Your task to perform on an android device: What's the weather? Image 0: 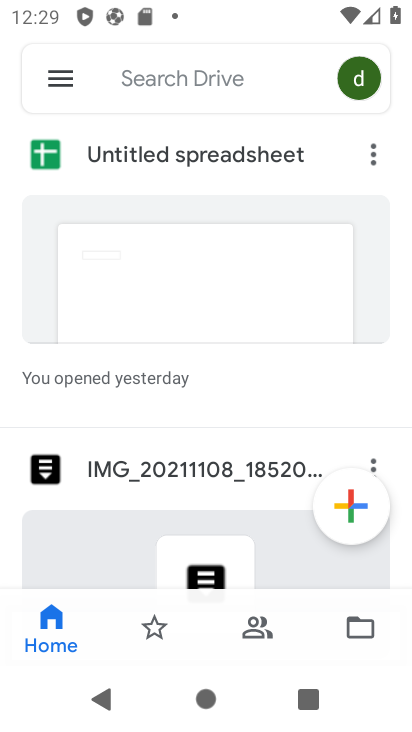
Step 0: press home button
Your task to perform on an android device: What's the weather? Image 1: 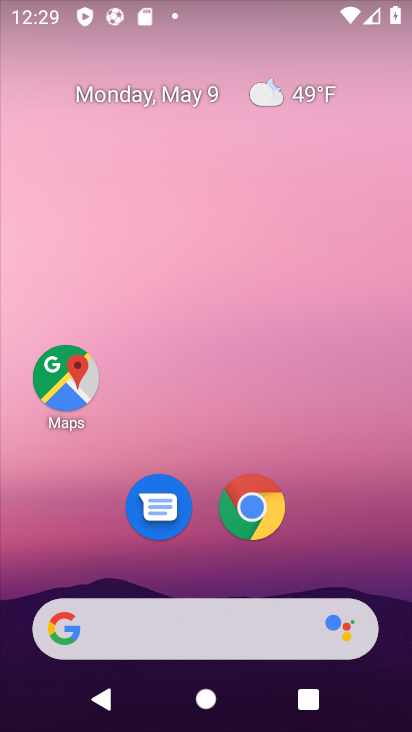
Step 1: drag from (212, 611) to (200, 202)
Your task to perform on an android device: What's the weather? Image 2: 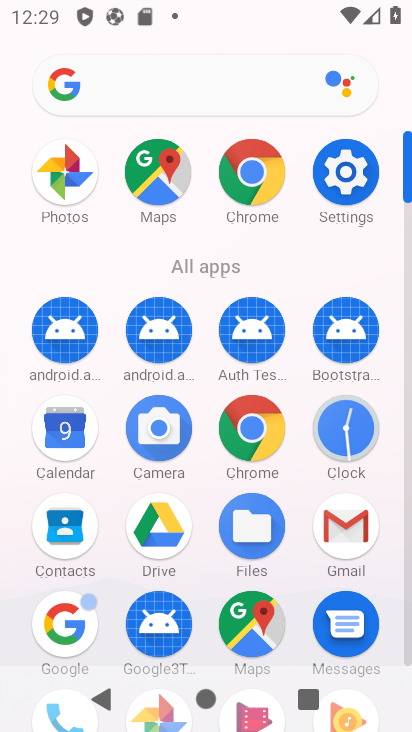
Step 2: click (52, 623)
Your task to perform on an android device: What's the weather? Image 3: 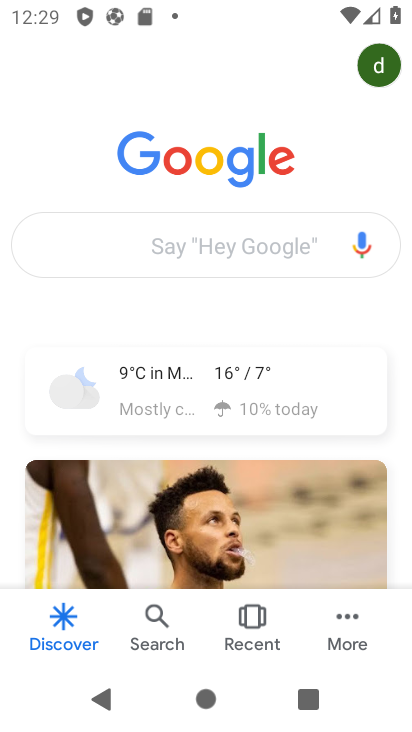
Step 3: click (156, 372)
Your task to perform on an android device: What's the weather? Image 4: 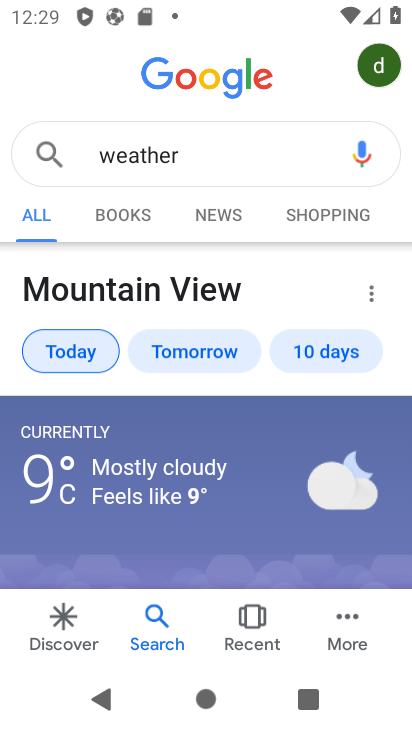
Step 4: task complete